Your task to perform on an android device: Open Chrome and go to settings Image 0: 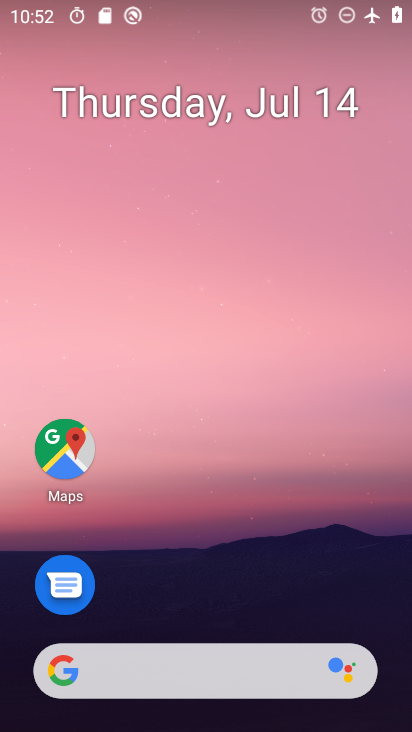
Step 0: drag from (218, 633) to (178, 110)
Your task to perform on an android device: Open Chrome and go to settings Image 1: 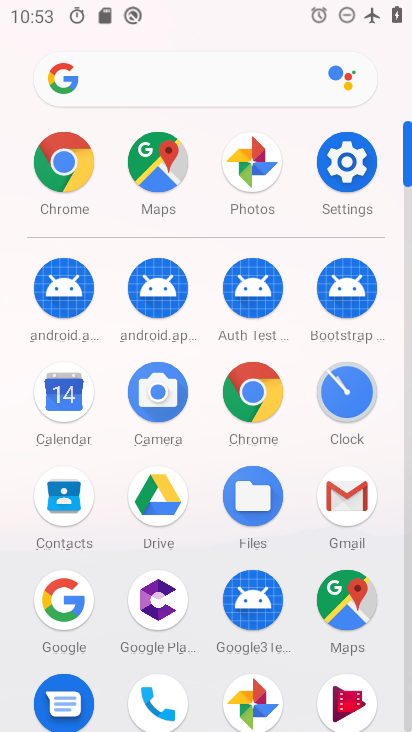
Step 1: click (253, 402)
Your task to perform on an android device: Open Chrome and go to settings Image 2: 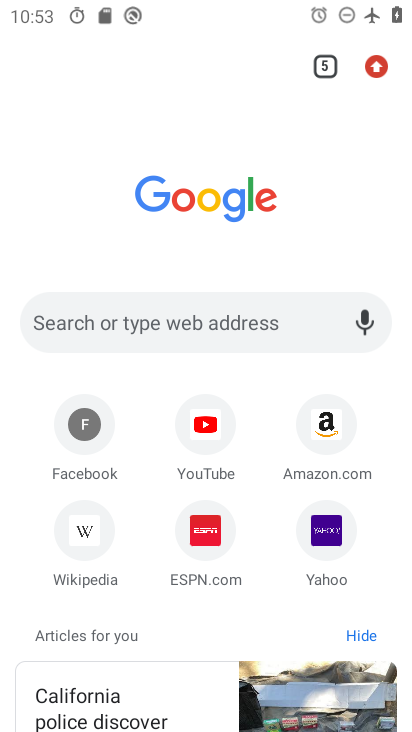
Step 2: click (374, 75)
Your task to perform on an android device: Open Chrome and go to settings Image 3: 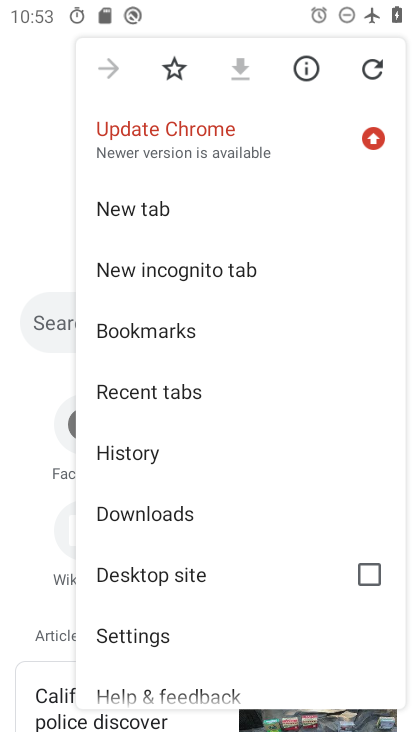
Step 3: click (132, 633)
Your task to perform on an android device: Open Chrome and go to settings Image 4: 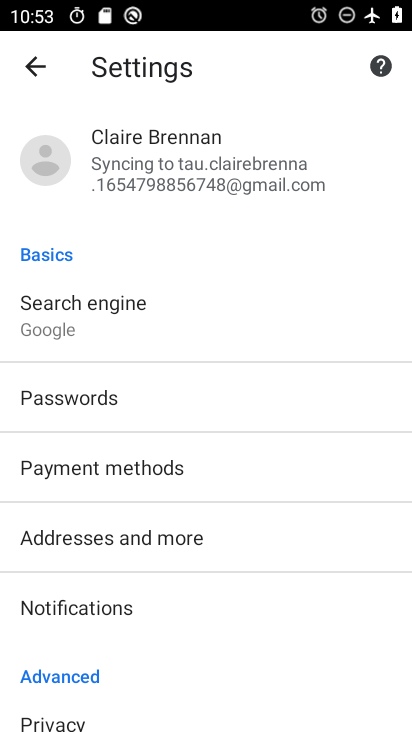
Step 4: task complete